Your task to perform on an android device: toggle location history Image 0: 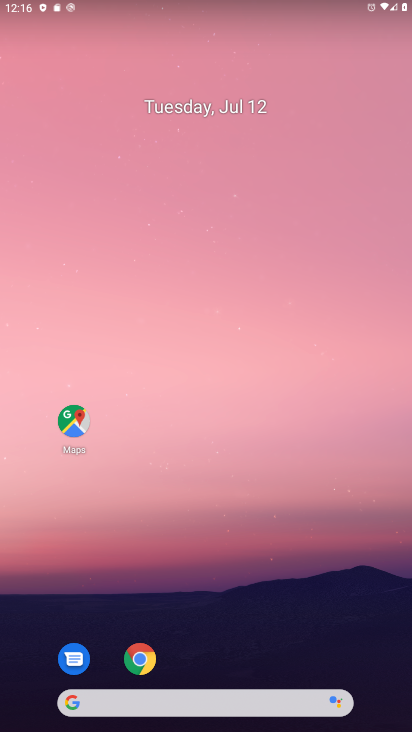
Step 0: drag from (274, 61) to (219, 276)
Your task to perform on an android device: toggle location history Image 1: 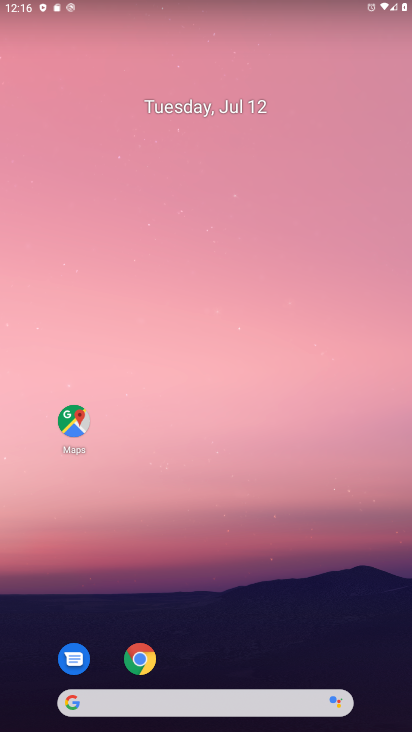
Step 1: drag from (185, 451) to (277, 97)
Your task to perform on an android device: toggle location history Image 2: 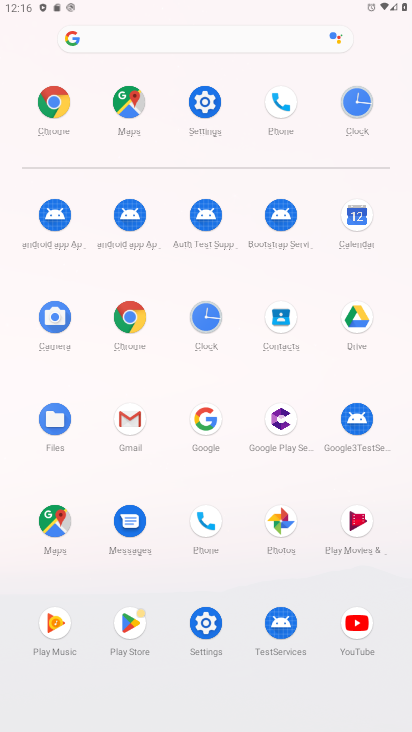
Step 2: click (201, 622)
Your task to perform on an android device: toggle location history Image 3: 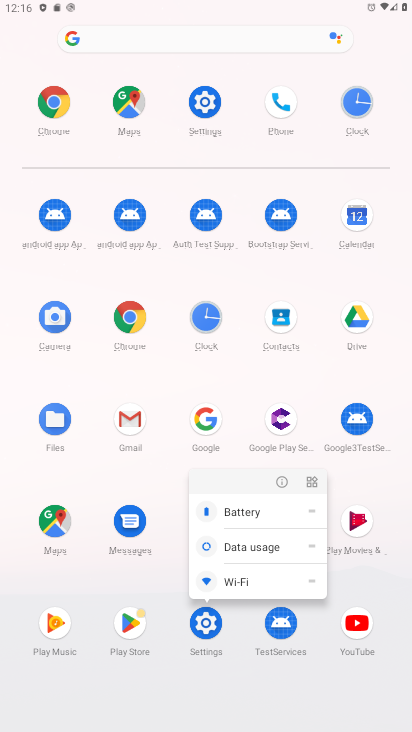
Step 3: click (281, 477)
Your task to perform on an android device: toggle location history Image 4: 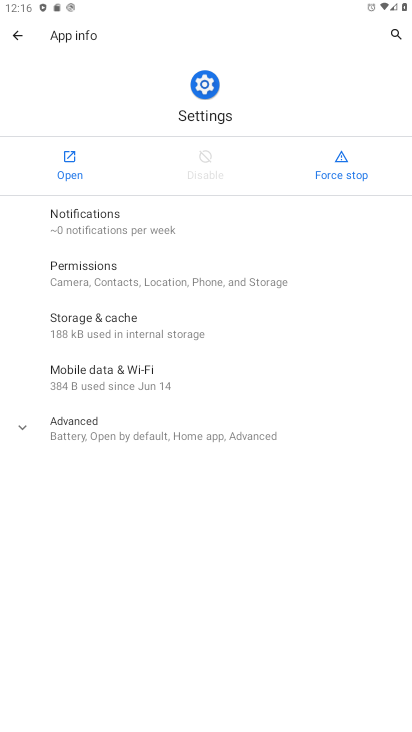
Step 4: click (77, 167)
Your task to perform on an android device: toggle location history Image 5: 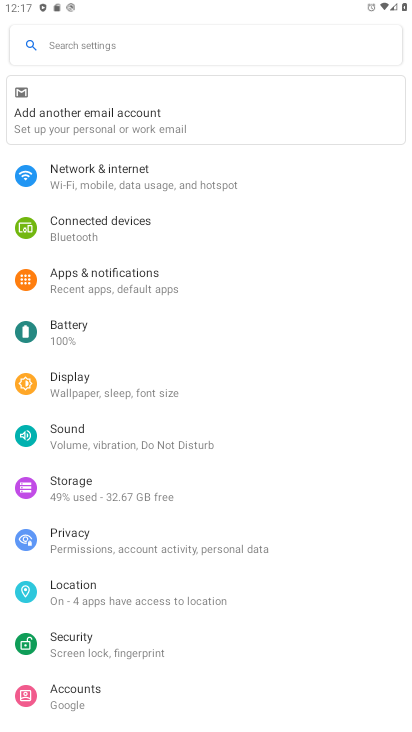
Step 5: click (74, 596)
Your task to perform on an android device: toggle location history Image 6: 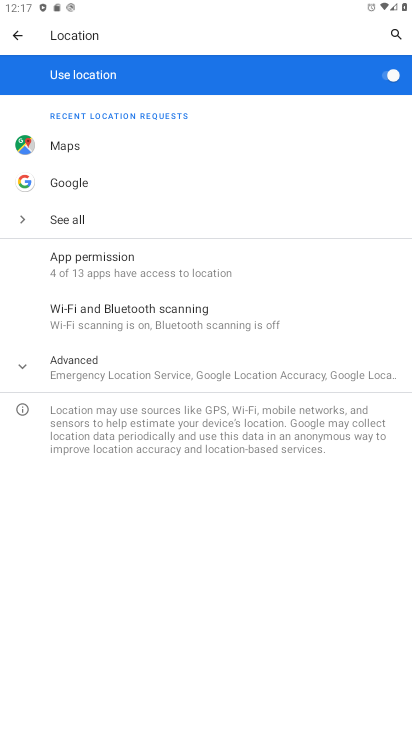
Step 6: click (110, 357)
Your task to perform on an android device: toggle location history Image 7: 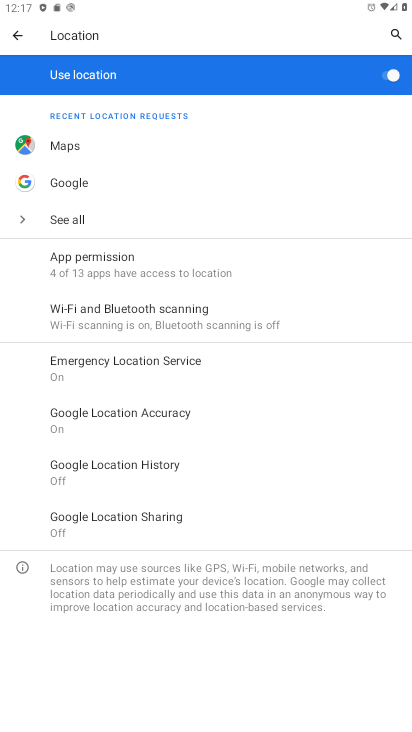
Step 7: click (162, 476)
Your task to perform on an android device: toggle location history Image 8: 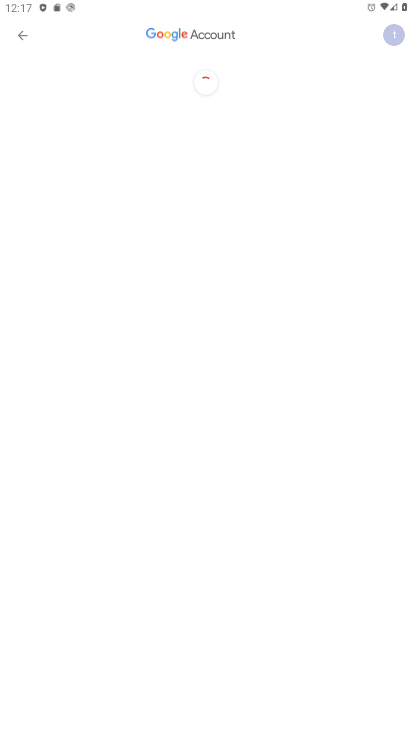
Step 8: drag from (187, 197) to (244, 497)
Your task to perform on an android device: toggle location history Image 9: 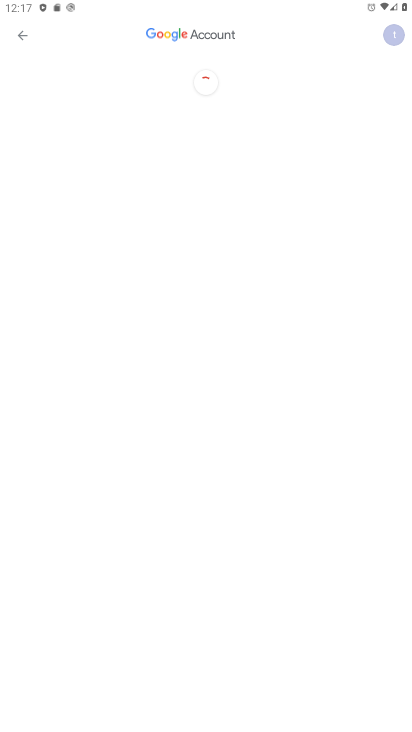
Step 9: click (244, 497)
Your task to perform on an android device: toggle location history Image 10: 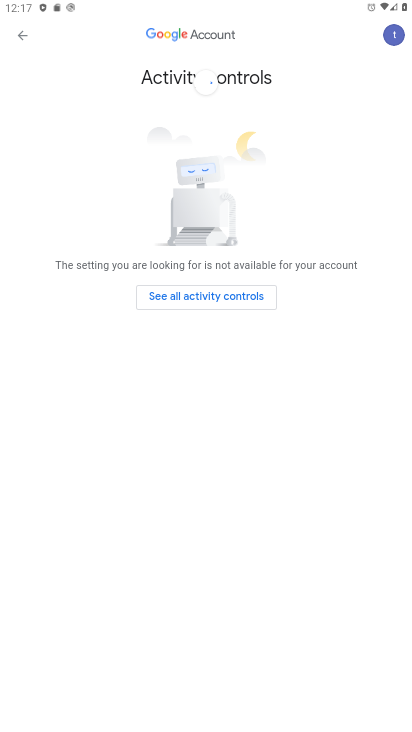
Step 10: click (216, 288)
Your task to perform on an android device: toggle location history Image 11: 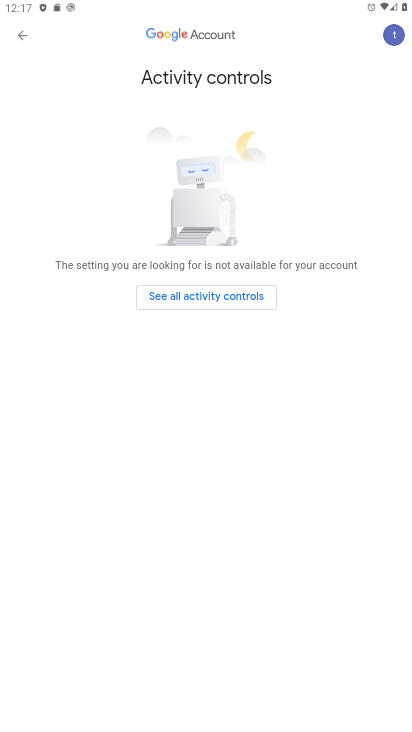
Step 11: click (185, 308)
Your task to perform on an android device: toggle location history Image 12: 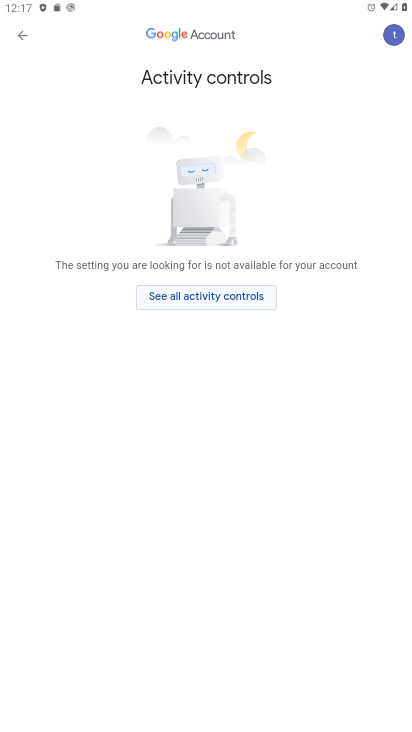
Step 12: click (182, 301)
Your task to perform on an android device: toggle location history Image 13: 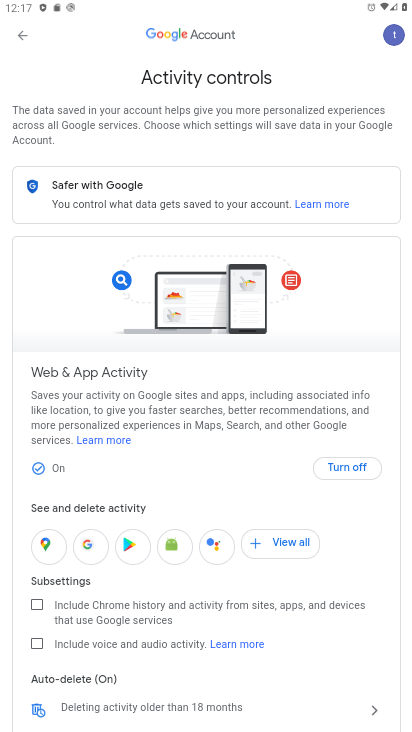
Step 13: drag from (198, 614) to (253, 383)
Your task to perform on an android device: toggle location history Image 14: 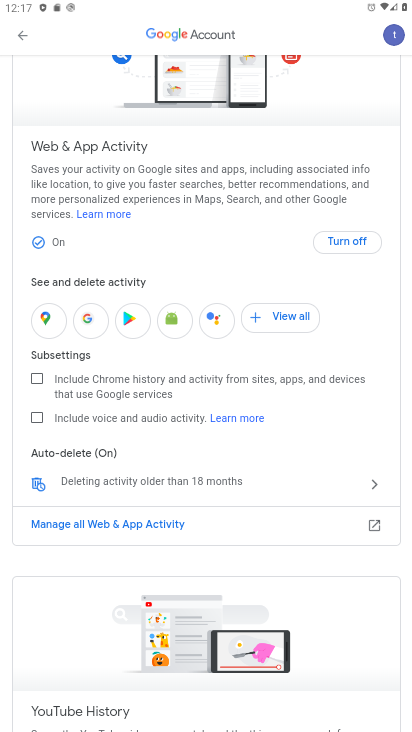
Step 14: click (353, 241)
Your task to perform on an android device: toggle location history Image 15: 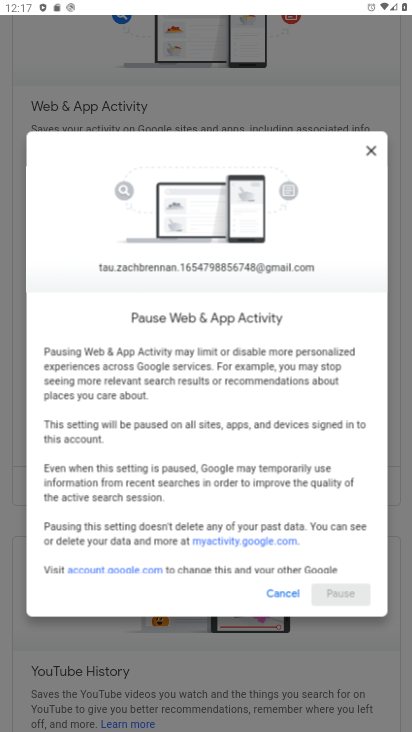
Step 15: drag from (272, 503) to (358, 148)
Your task to perform on an android device: toggle location history Image 16: 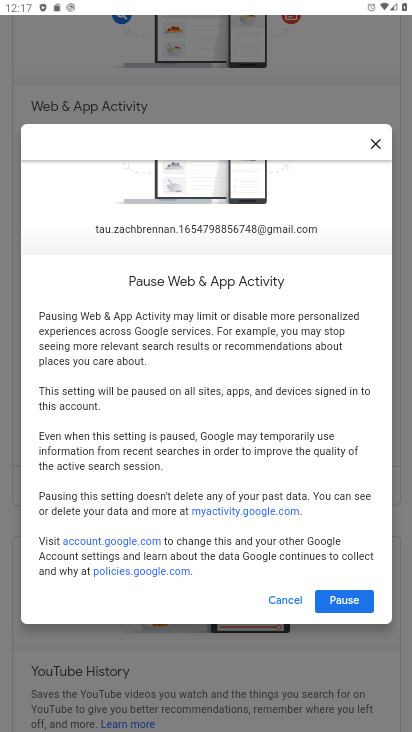
Step 16: click (323, 594)
Your task to perform on an android device: toggle location history Image 17: 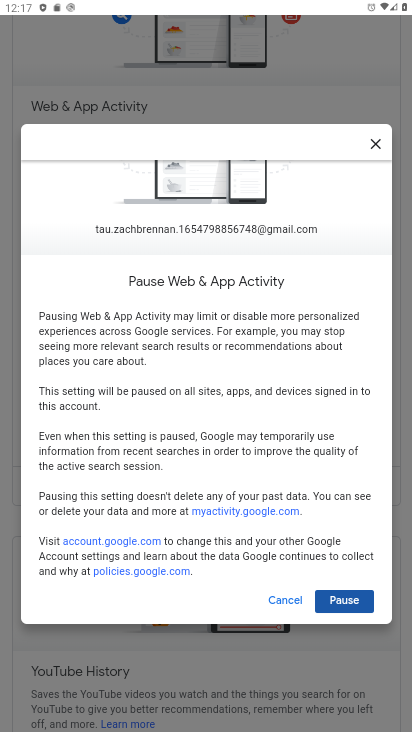
Step 17: task complete